Your task to perform on an android device: Search for Mexican restaurants on Maps Image 0: 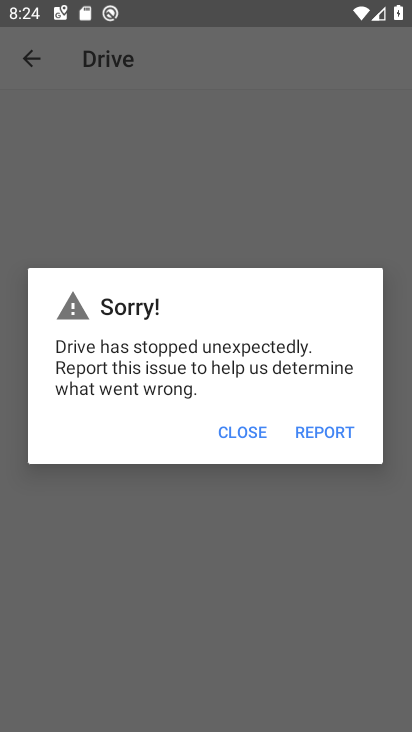
Step 0: press home button
Your task to perform on an android device: Search for Mexican restaurants on Maps Image 1: 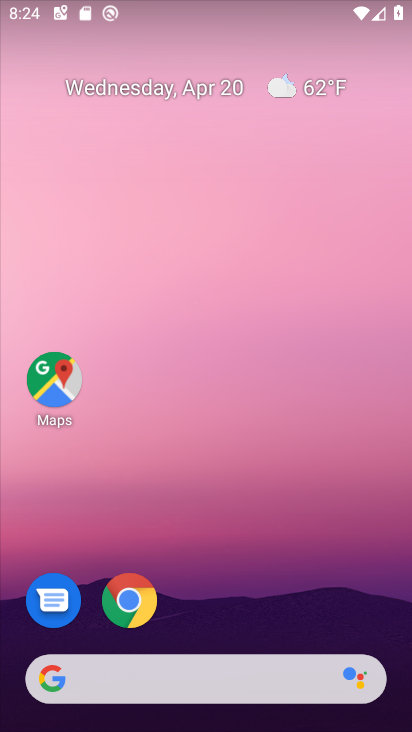
Step 1: drag from (240, 592) to (278, 66)
Your task to perform on an android device: Search for Mexican restaurants on Maps Image 2: 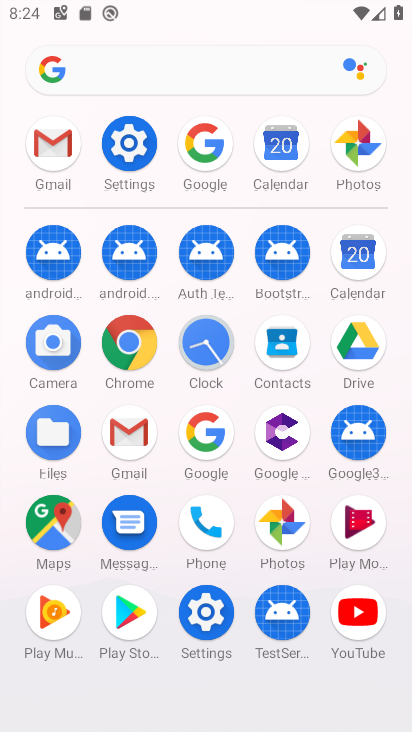
Step 2: click (46, 514)
Your task to perform on an android device: Search for Mexican restaurants on Maps Image 3: 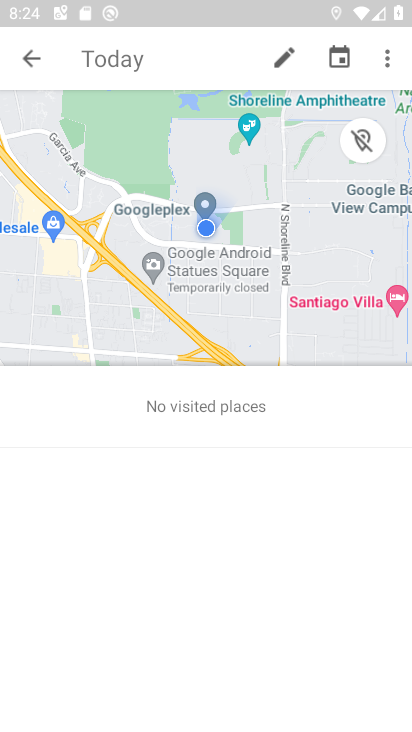
Step 3: click (35, 50)
Your task to perform on an android device: Search for Mexican restaurants on Maps Image 4: 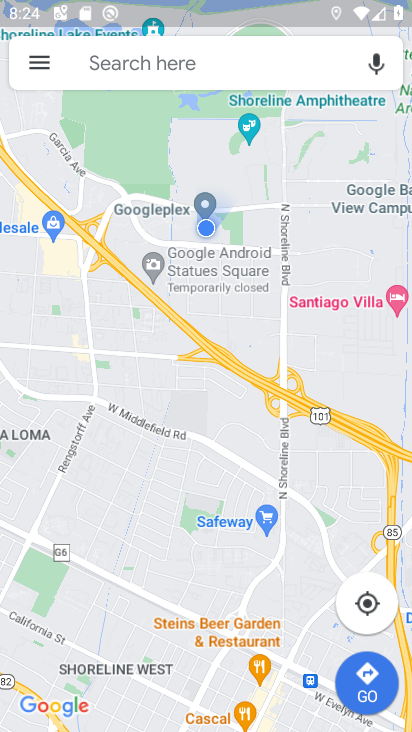
Step 4: click (230, 64)
Your task to perform on an android device: Search for Mexican restaurants on Maps Image 5: 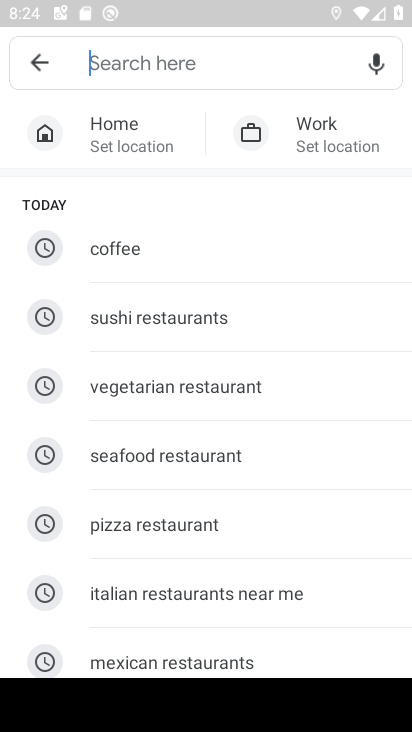
Step 5: click (182, 660)
Your task to perform on an android device: Search for Mexican restaurants on Maps Image 6: 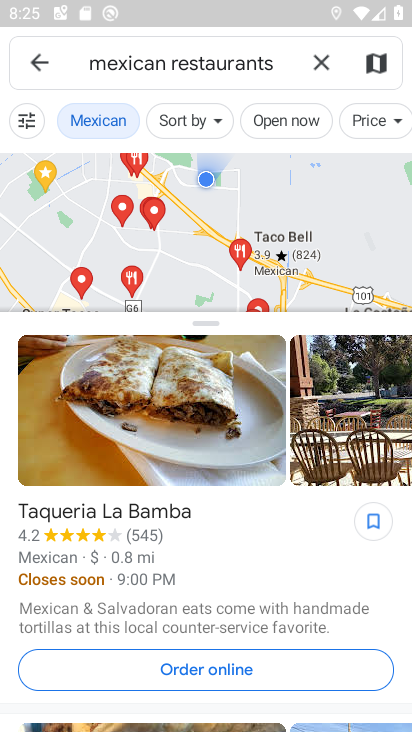
Step 6: task complete